Your task to perform on an android device: turn on the 12-hour format for clock Image 0: 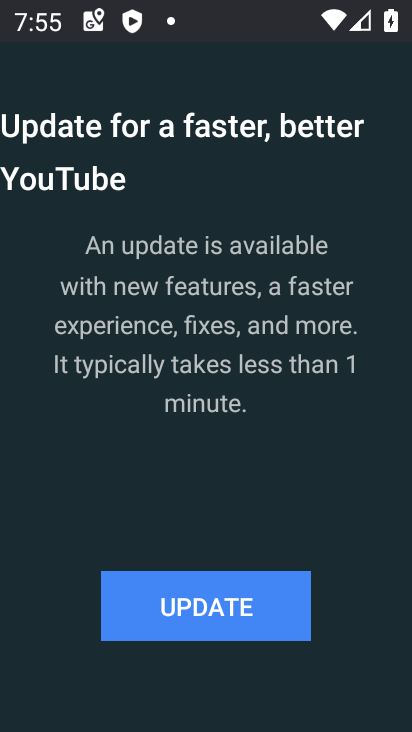
Step 0: press back button
Your task to perform on an android device: turn on the 12-hour format for clock Image 1: 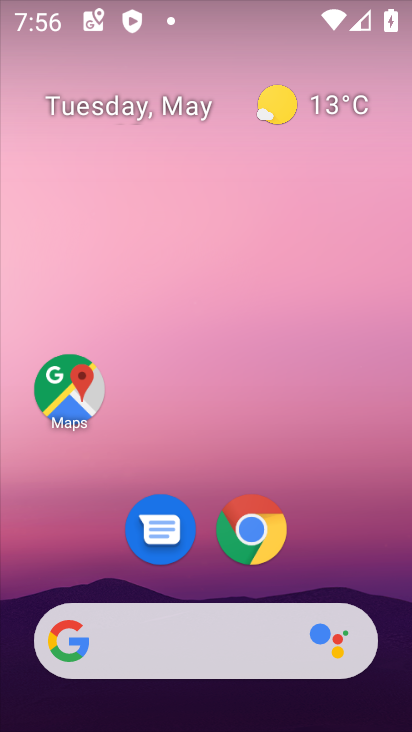
Step 1: drag from (296, 569) to (259, 167)
Your task to perform on an android device: turn on the 12-hour format for clock Image 2: 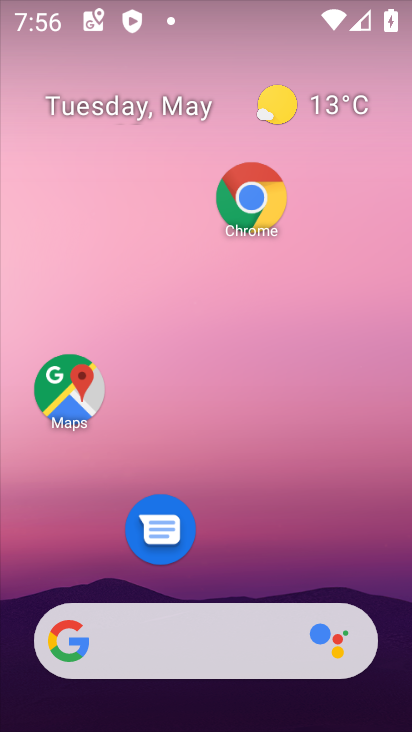
Step 2: click (279, 469)
Your task to perform on an android device: turn on the 12-hour format for clock Image 3: 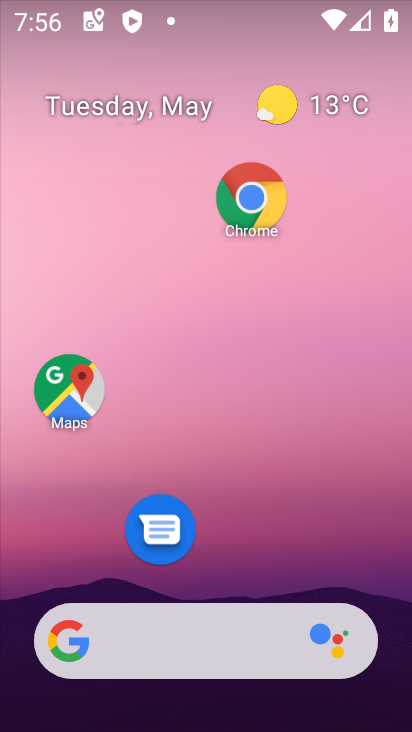
Step 3: click (288, 563)
Your task to perform on an android device: turn on the 12-hour format for clock Image 4: 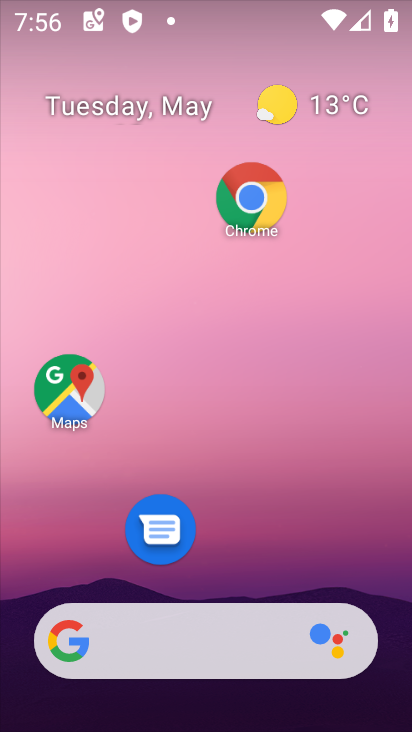
Step 4: drag from (288, 563) to (277, 43)
Your task to perform on an android device: turn on the 12-hour format for clock Image 5: 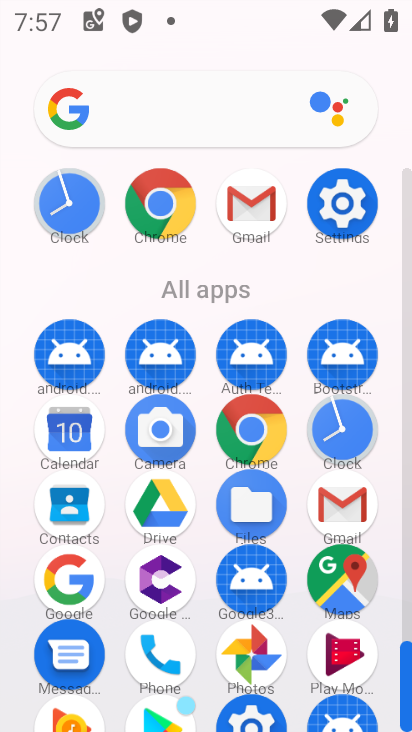
Step 5: click (352, 443)
Your task to perform on an android device: turn on the 12-hour format for clock Image 6: 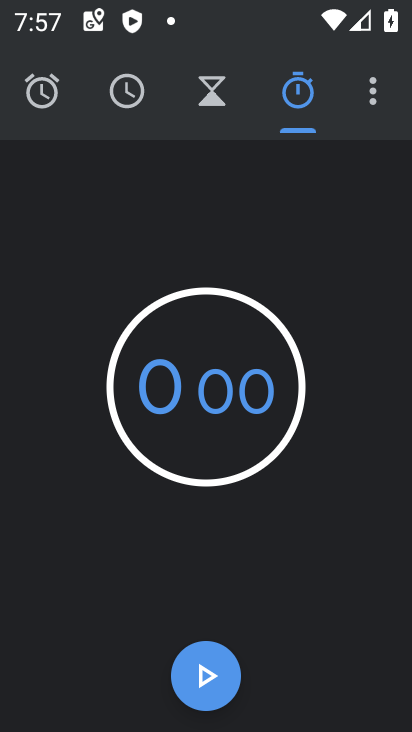
Step 6: click (372, 112)
Your task to perform on an android device: turn on the 12-hour format for clock Image 7: 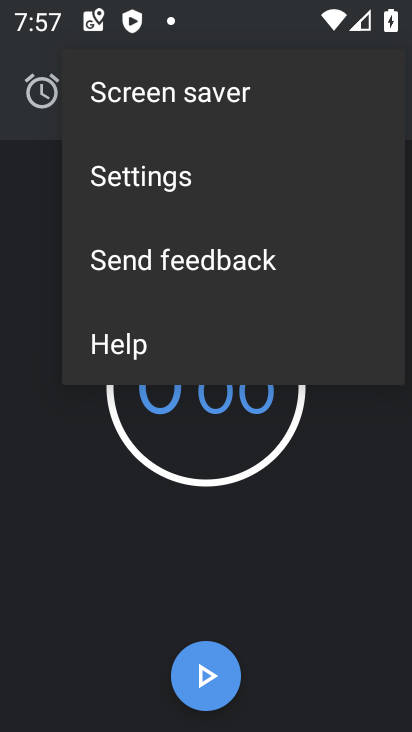
Step 7: click (229, 177)
Your task to perform on an android device: turn on the 12-hour format for clock Image 8: 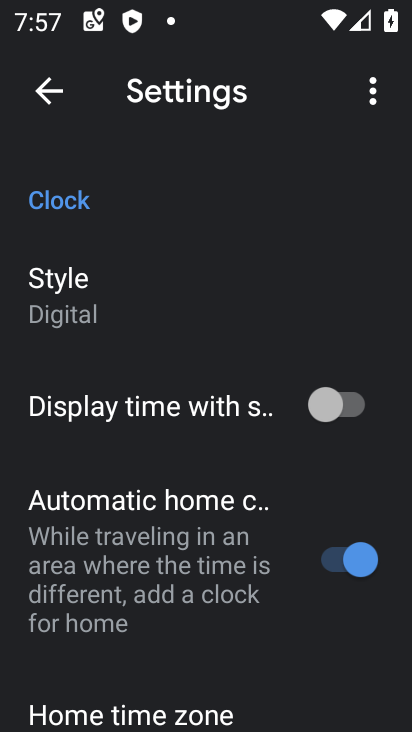
Step 8: drag from (201, 592) to (203, 146)
Your task to perform on an android device: turn on the 12-hour format for clock Image 9: 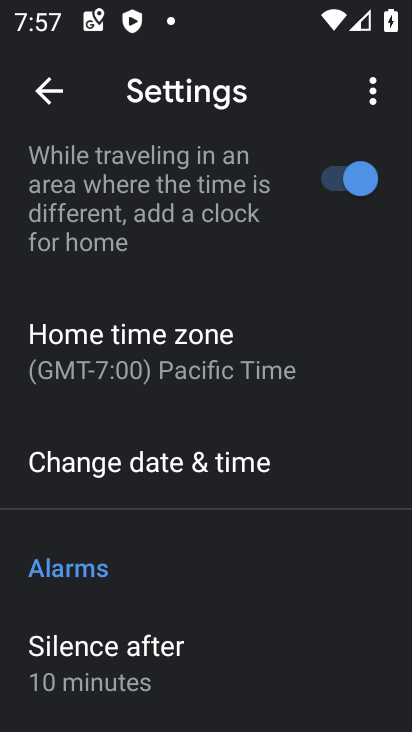
Step 9: click (205, 489)
Your task to perform on an android device: turn on the 12-hour format for clock Image 10: 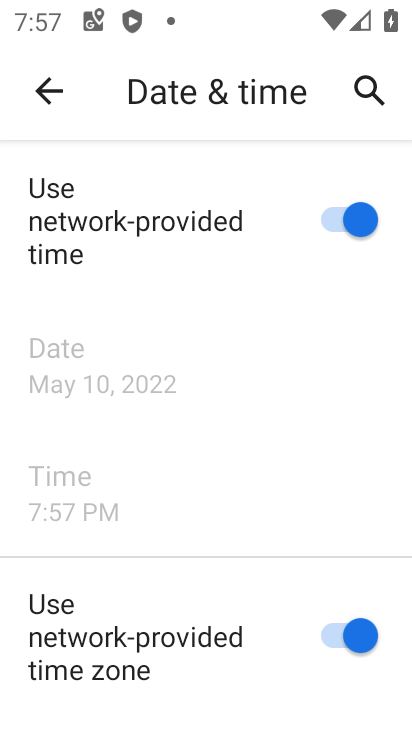
Step 10: task complete